Your task to perform on an android device: What is the news today? Image 0: 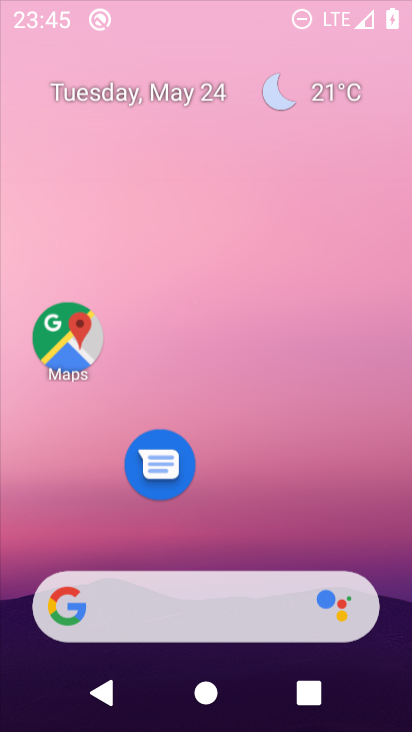
Step 0: click (204, 180)
Your task to perform on an android device: What is the news today? Image 1: 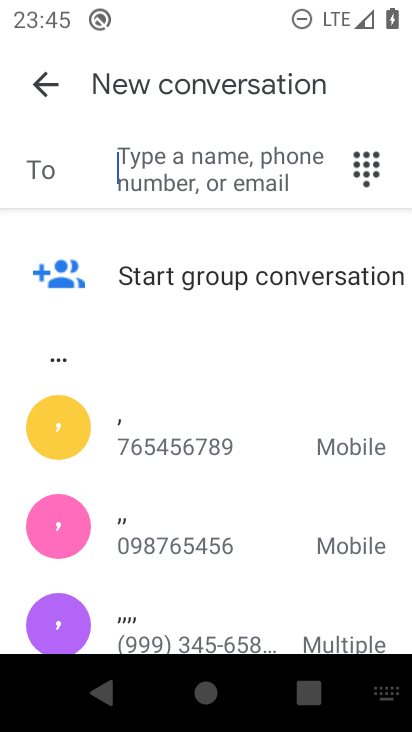
Step 1: drag from (174, 577) to (177, 293)
Your task to perform on an android device: What is the news today? Image 2: 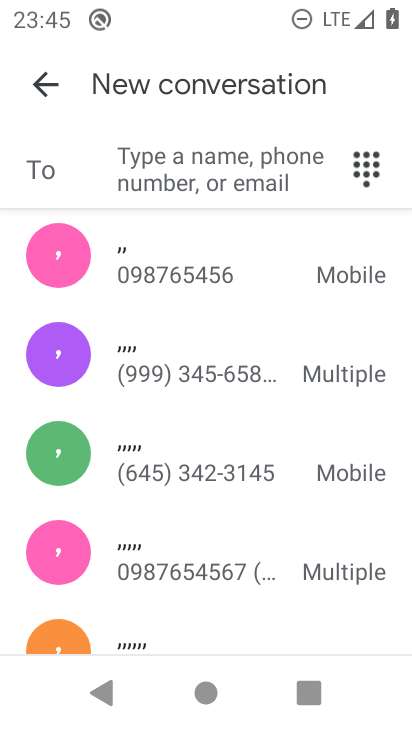
Step 2: click (41, 72)
Your task to perform on an android device: What is the news today? Image 3: 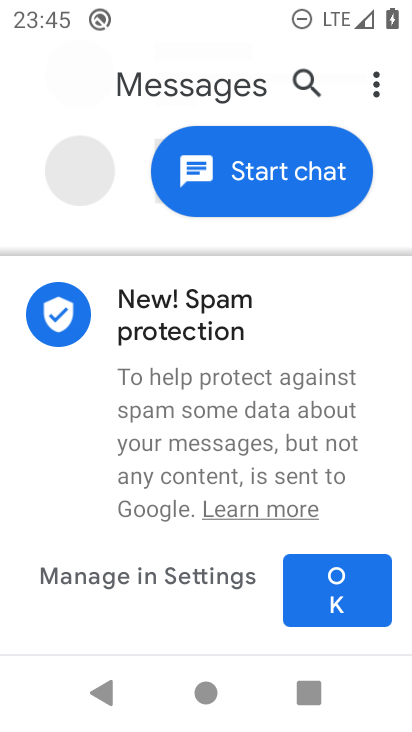
Step 3: press home button
Your task to perform on an android device: What is the news today? Image 4: 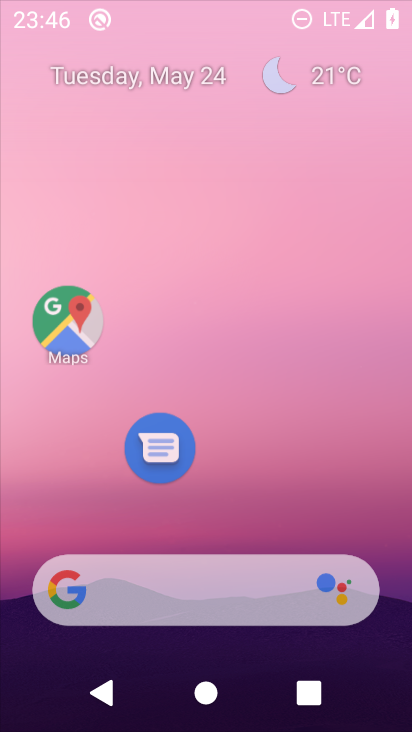
Step 4: drag from (204, 515) to (206, 202)
Your task to perform on an android device: What is the news today? Image 5: 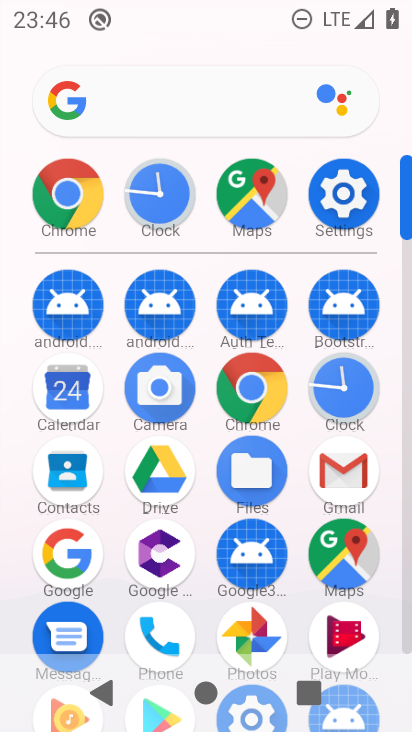
Step 5: click (160, 104)
Your task to perform on an android device: What is the news today? Image 6: 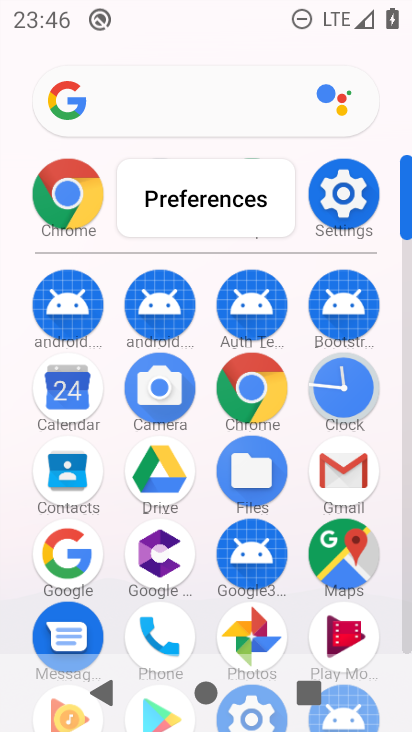
Step 6: click (172, 89)
Your task to perform on an android device: What is the news today? Image 7: 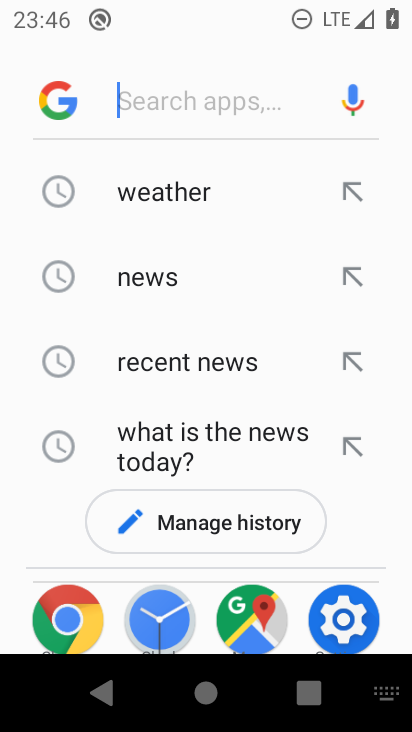
Step 7: type "news today?"
Your task to perform on an android device: What is the news today? Image 8: 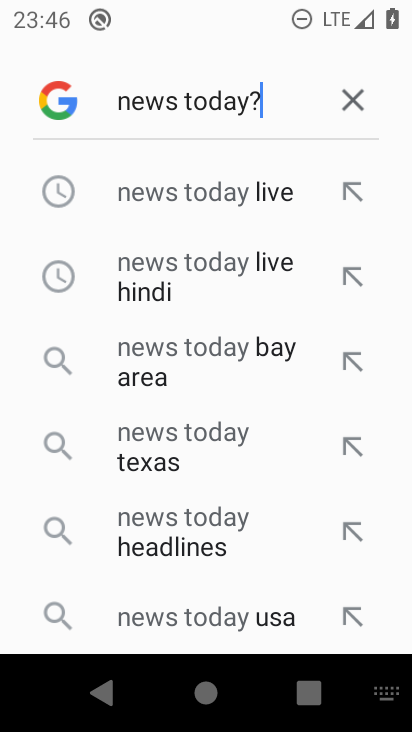
Step 8: click (156, 195)
Your task to perform on an android device: What is the news today? Image 9: 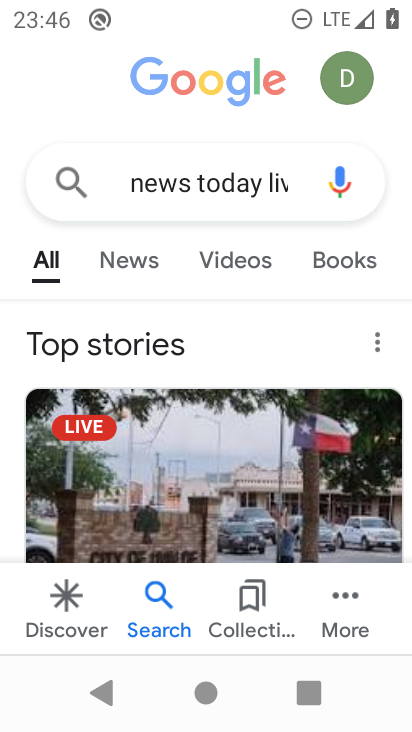
Step 9: task complete